Your task to perform on an android device: toggle data saver in the chrome app Image 0: 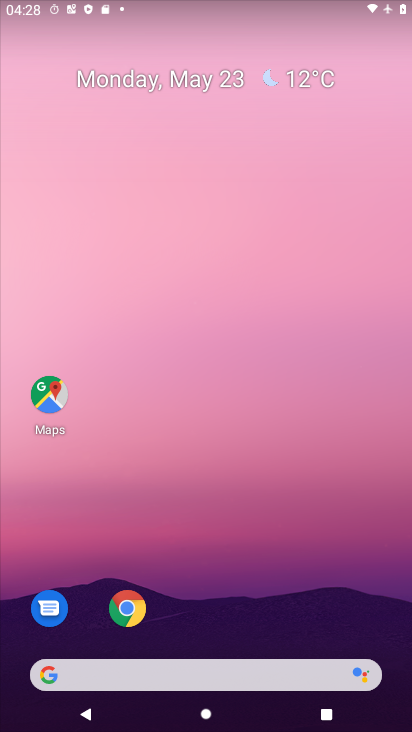
Step 0: drag from (311, 605) to (164, 12)
Your task to perform on an android device: toggle data saver in the chrome app Image 1: 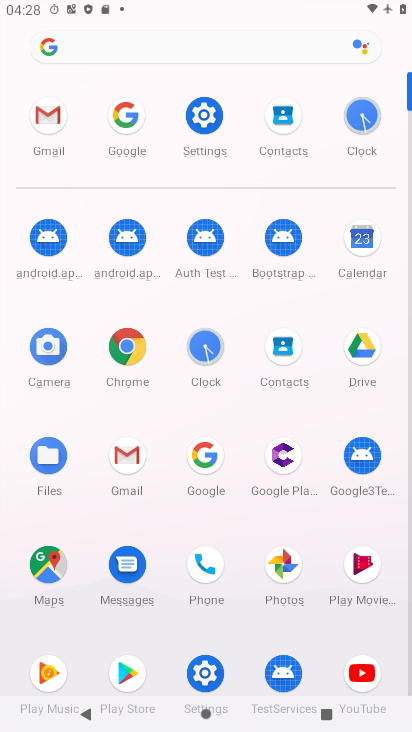
Step 1: click (128, 348)
Your task to perform on an android device: toggle data saver in the chrome app Image 2: 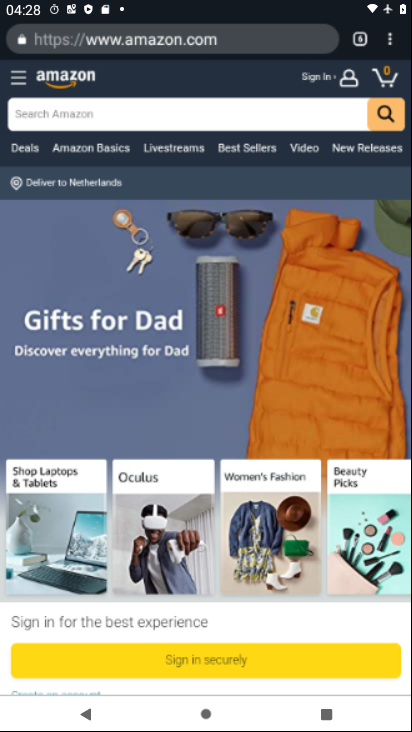
Step 2: click (388, 39)
Your task to perform on an android device: toggle data saver in the chrome app Image 3: 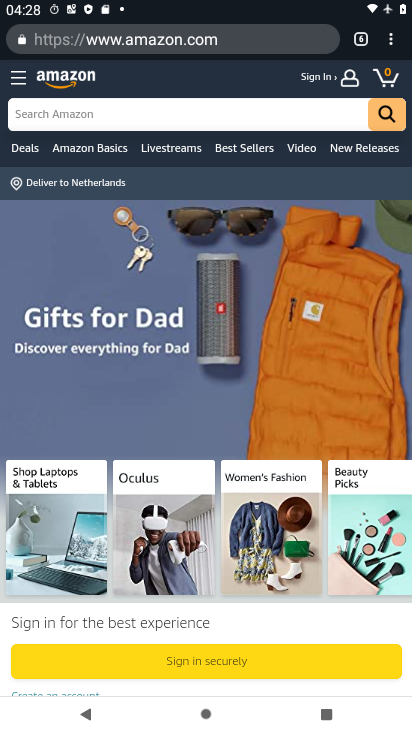
Step 3: click (388, 39)
Your task to perform on an android device: toggle data saver in the chrome app Image 4: 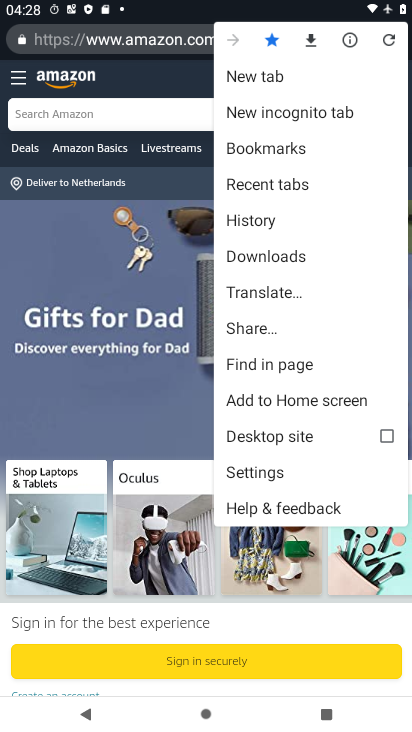
Step 4: click (278, 466)
Your task to perform on an android device: toggle data saver in the chrome app Image 5: 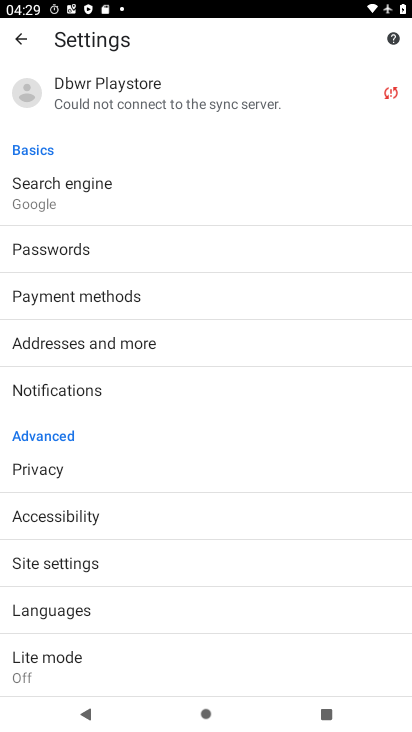
Step 5: click (129, 609)
Your task to perform on an android device: toggle data saver in the chrome app Image 6: 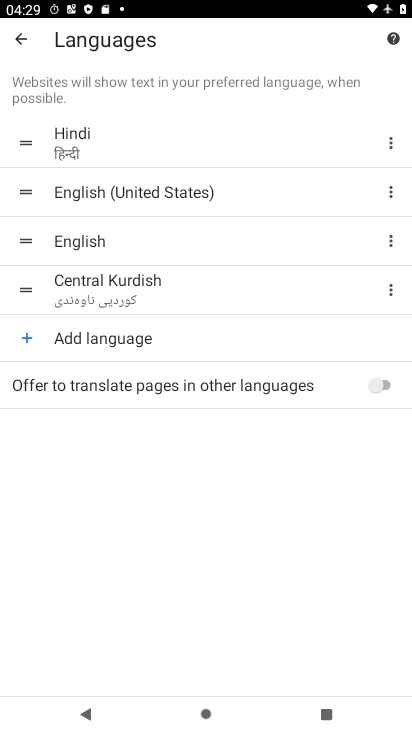
Step 6: click (385, 385)
Your task to perform on an android device: toggle data saver in the chrome app Image 7: 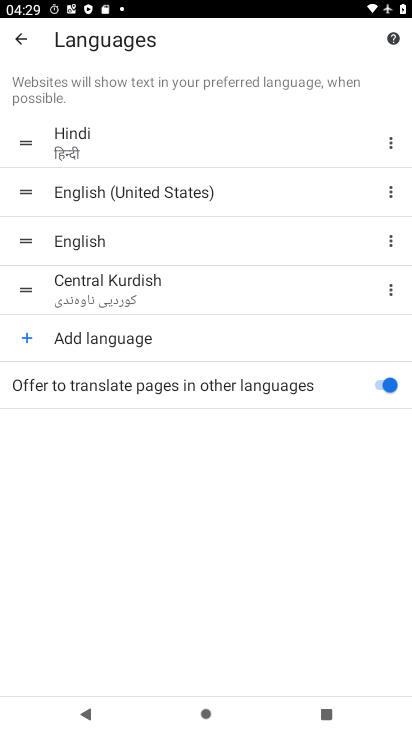
Step 7: click (20, 35)
Your task to perform on an android device: toggle data saver in the chrome app Image 8: 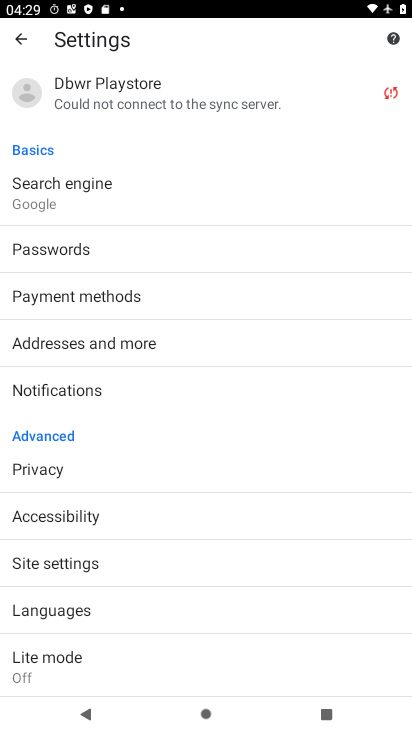
Step 8: click (127, 662)
Your task to perform on an android device: toggle data saver in the chrome app Image 9: 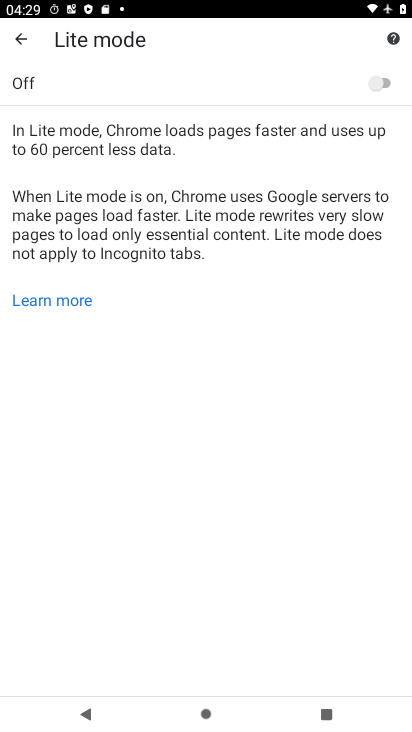
Step 9: click (384, 74)
Your task to perform on an android device: toggle data saver in the chrome app Image 10: 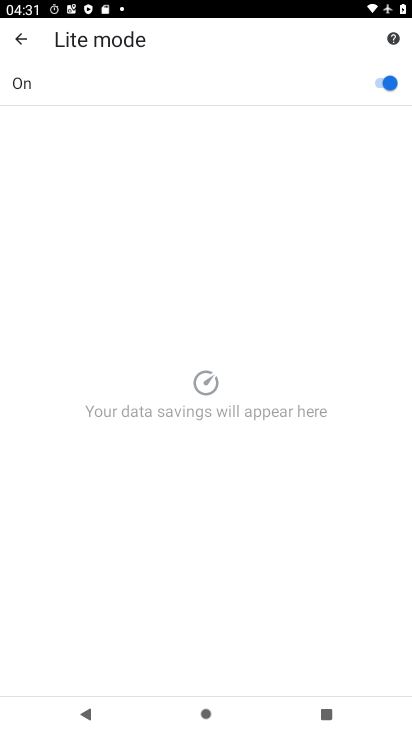
Step 10: task complete